Your task to perform on an android device: check google app version Image 0: 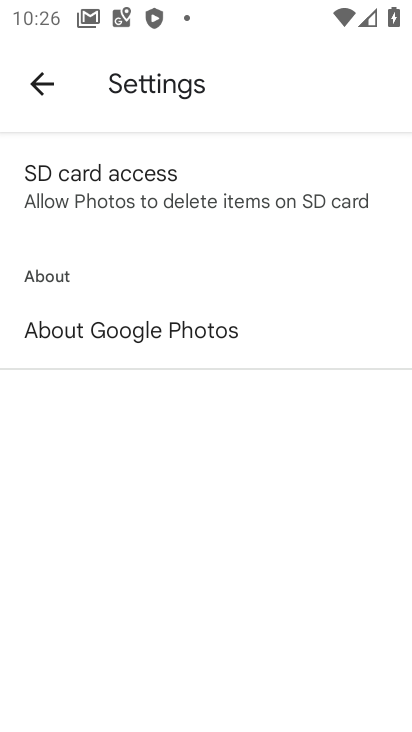
Step 0: press home button
Your task to perform on an android device: check google app version Image 1: 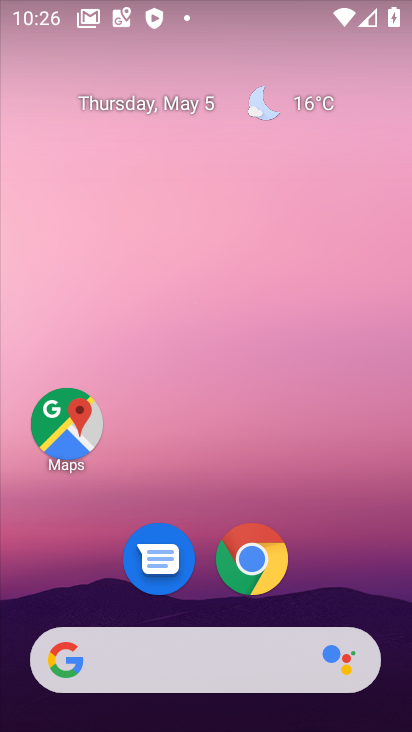
Step 1: click (225, 585)
Your task to perform on an android device: check google app version Image 2: 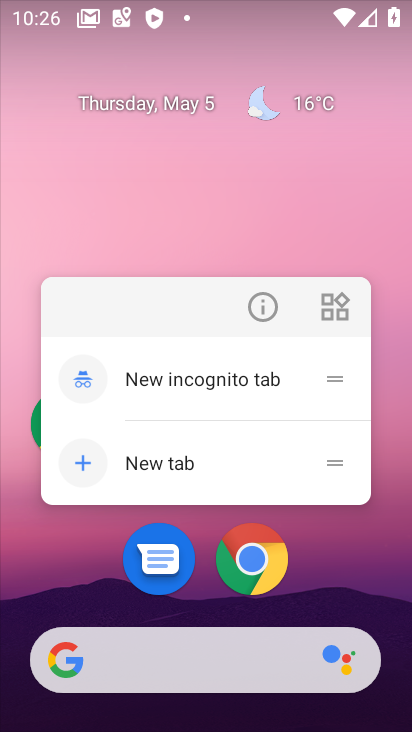
Step 2: click (271, 307)
Your task to perform on an android device: check google app version Image 3: 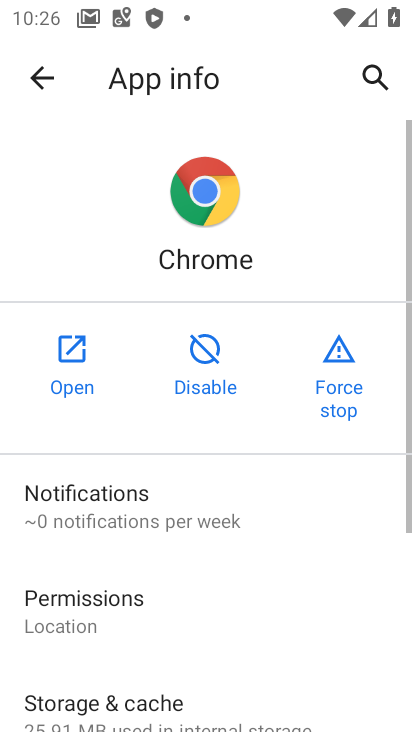
Step 3: drag from (210, 706) to (245, 59)
Your task to perform on an android device: check google app version Image 4: 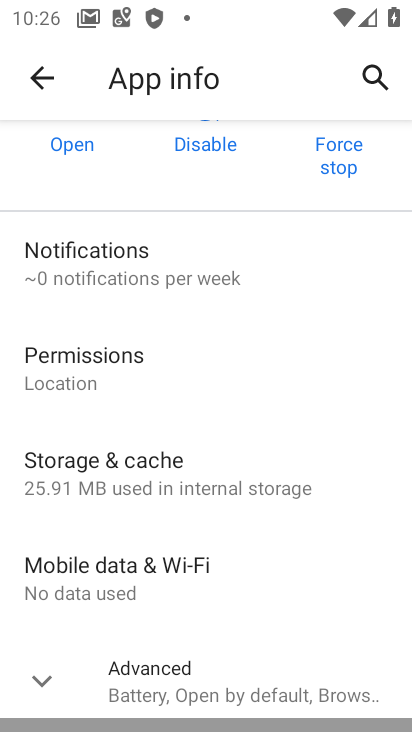
Step 4: drag from (282, 575) to (286, 239)
Your task to perform on an android device: check google app version Image 5: 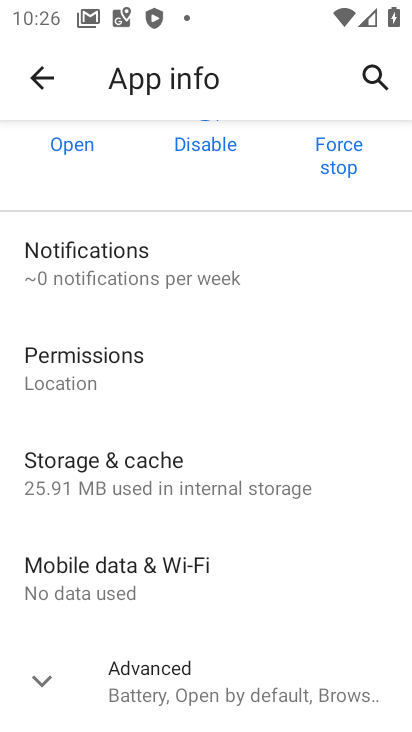
Step 5: click (229, 693)
Your task to perform on an android device: check google app version Image 6: 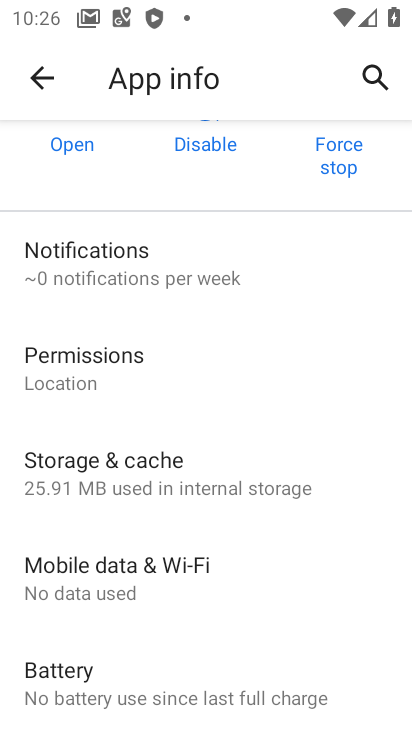
Step 6: task complete